Your task to perform on an android device: Add "jbl flip 4" to the cart on bestbuy.com, then select checkout. Image 0: 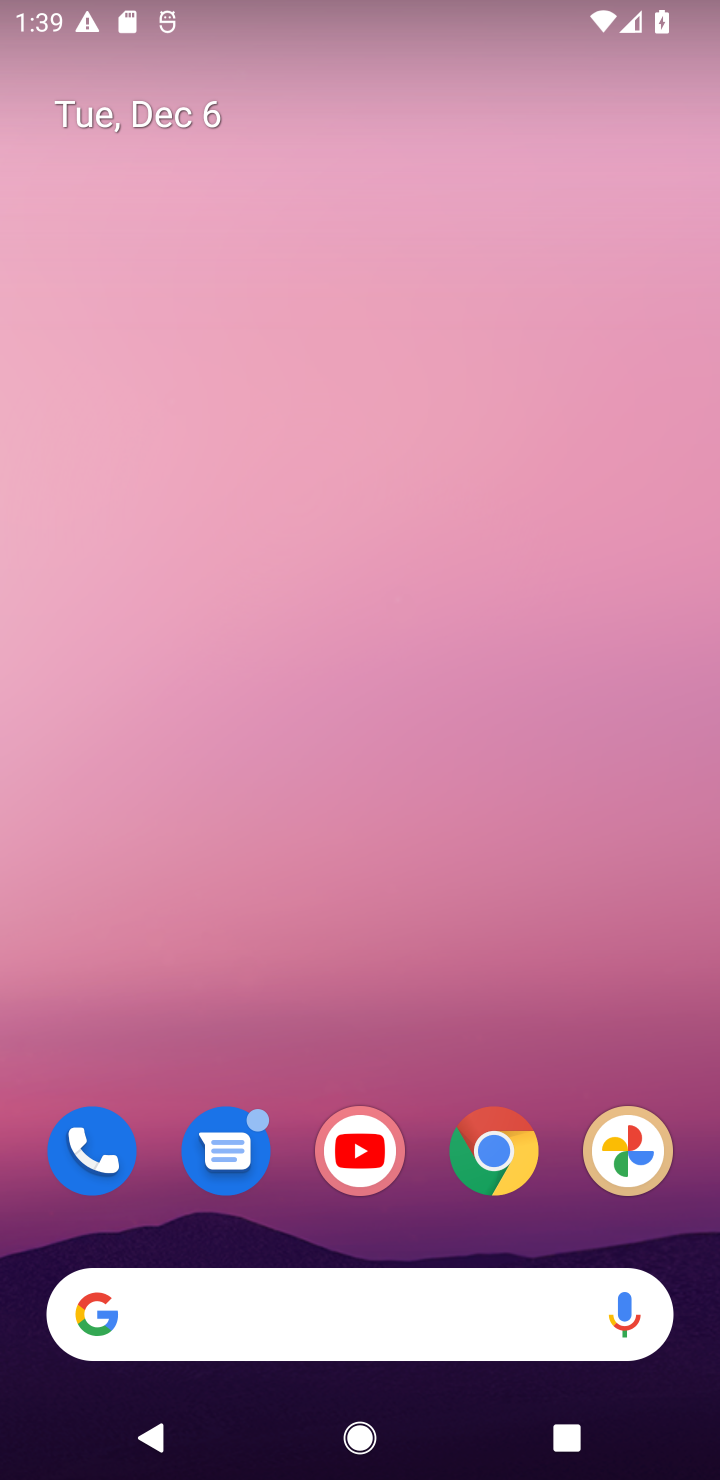
Step 0: click (508, 1154)
Your task to perform on an android device: Add "jbl flip 4" to the cart on bestbuy.com, then select checkout. Image 1: 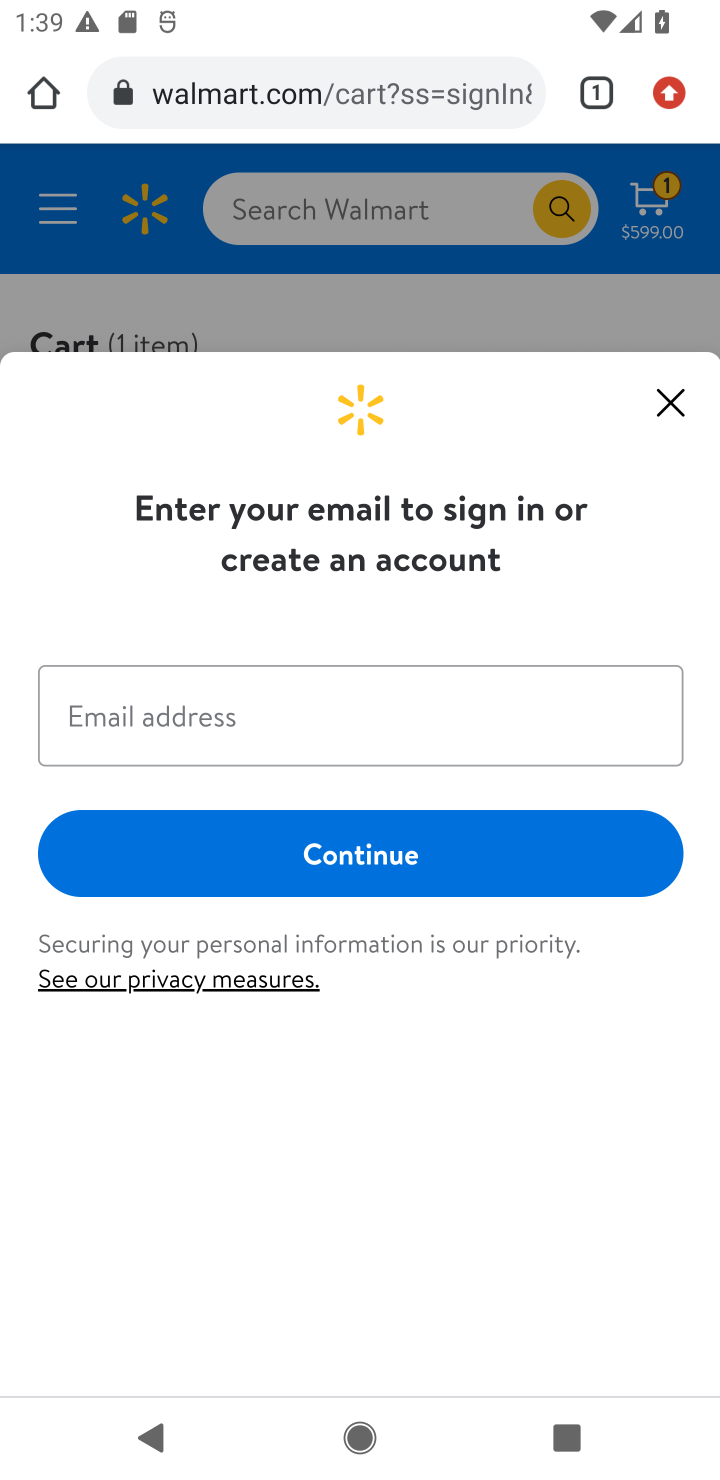
Step 1: click (277, 108)
Your task to perform on an android device: Add "jbl flip 4" to the cart on bestbuy.com, then select checkout. Image 2: 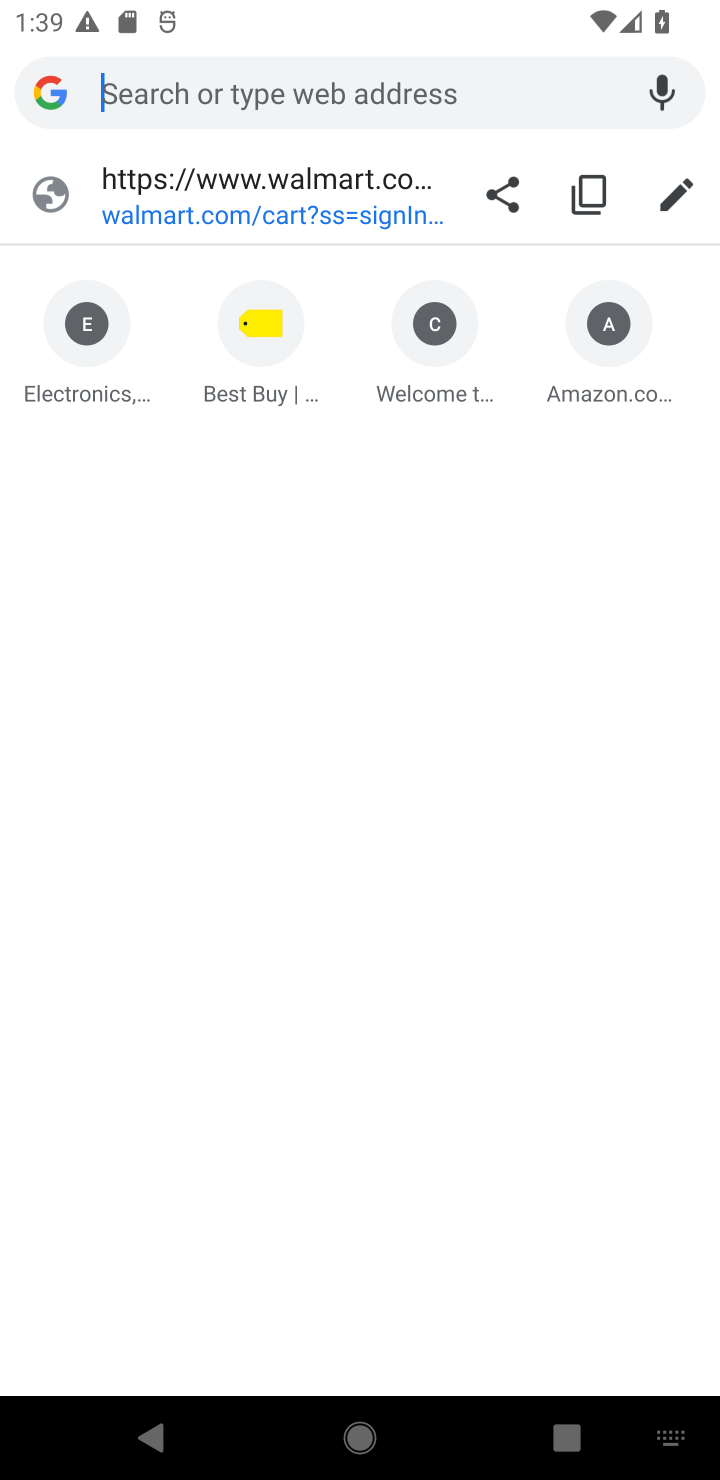
Step 2: click (253, 341)
Your task to perform on an android device: Add "jbl flip 4" to the cart on bestbuy.com, then select checkout. Image 3: 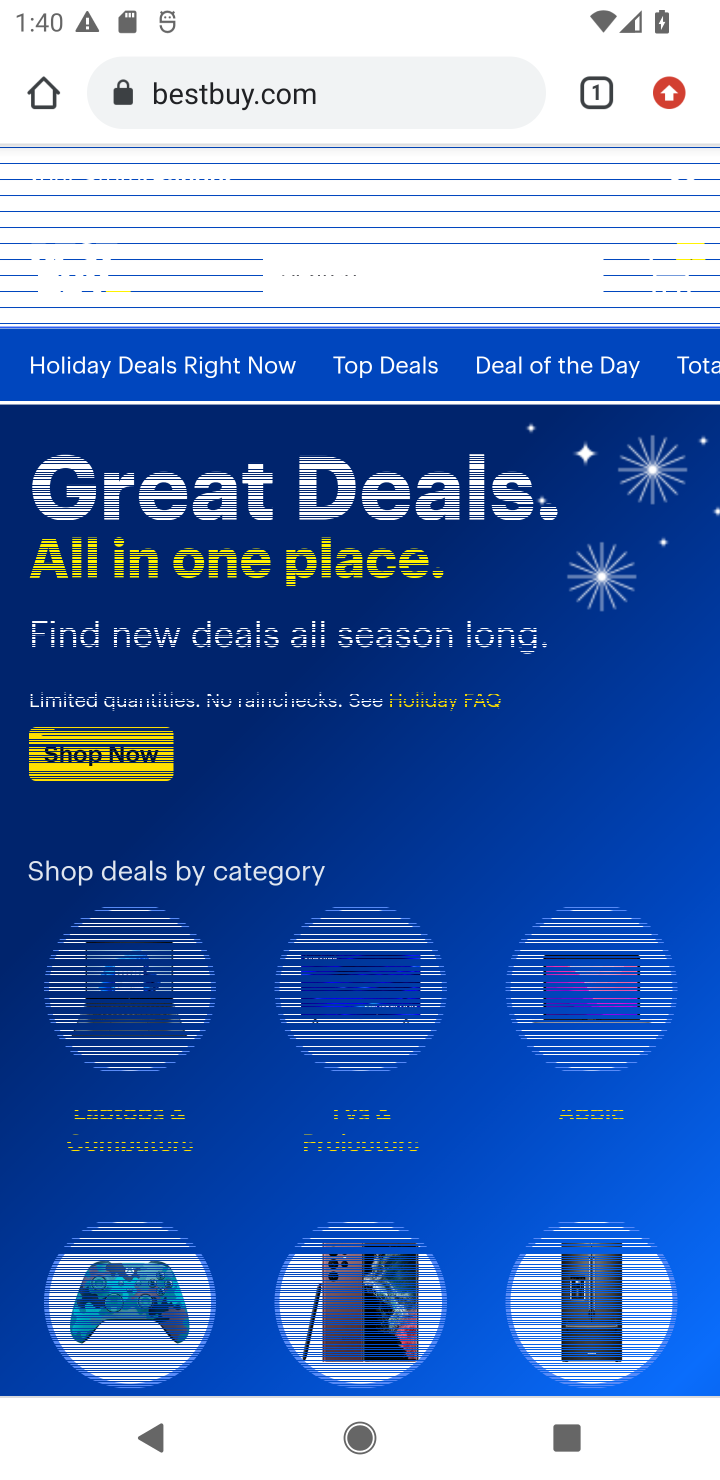
Step 3: click (321, 272)
Your task to perform on an android device: Add "jbl flip 4" to the cart on bestbuy.com, then select checkout. Image 4: 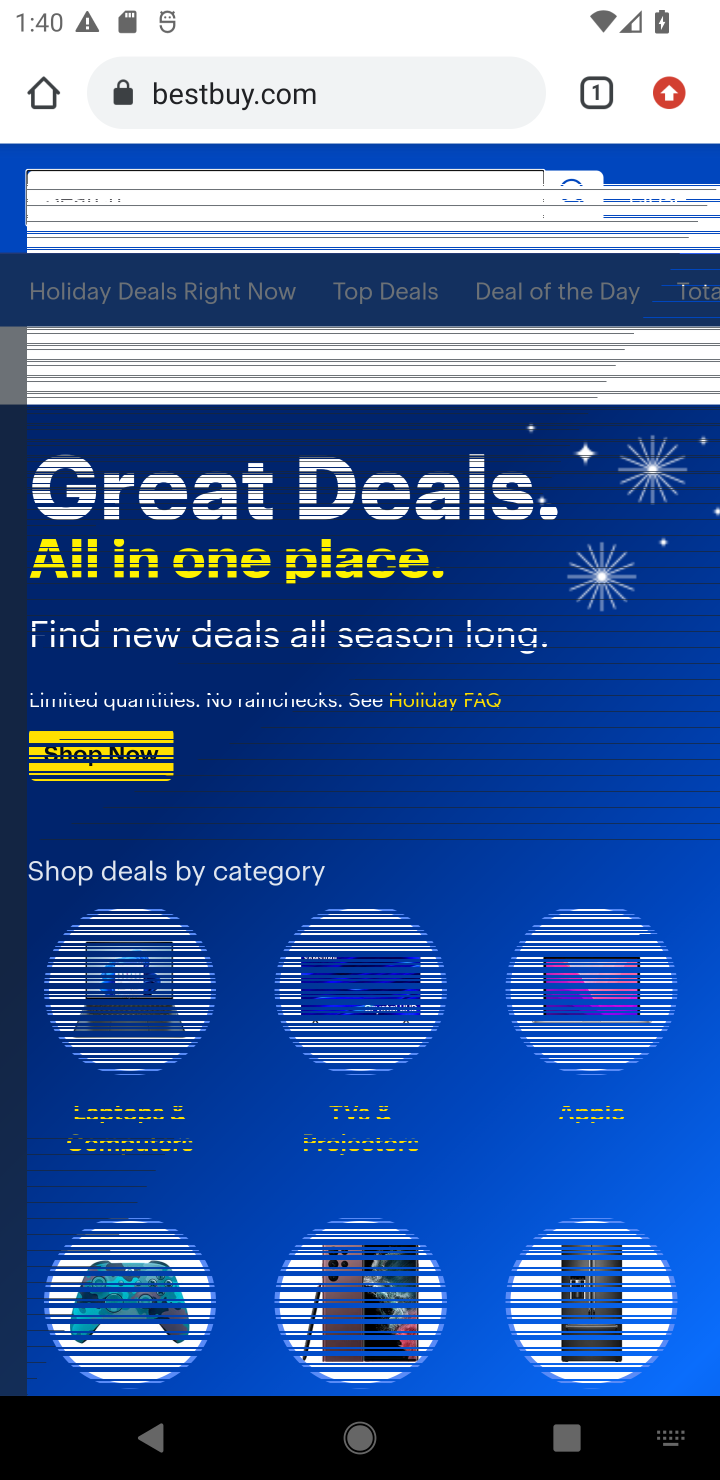
Step 4: type "jbl flip 4"
Your task to perform on an android device: Add "jbl flip 4" to the cart on bestbuy.com, then select checkout. Image 5: 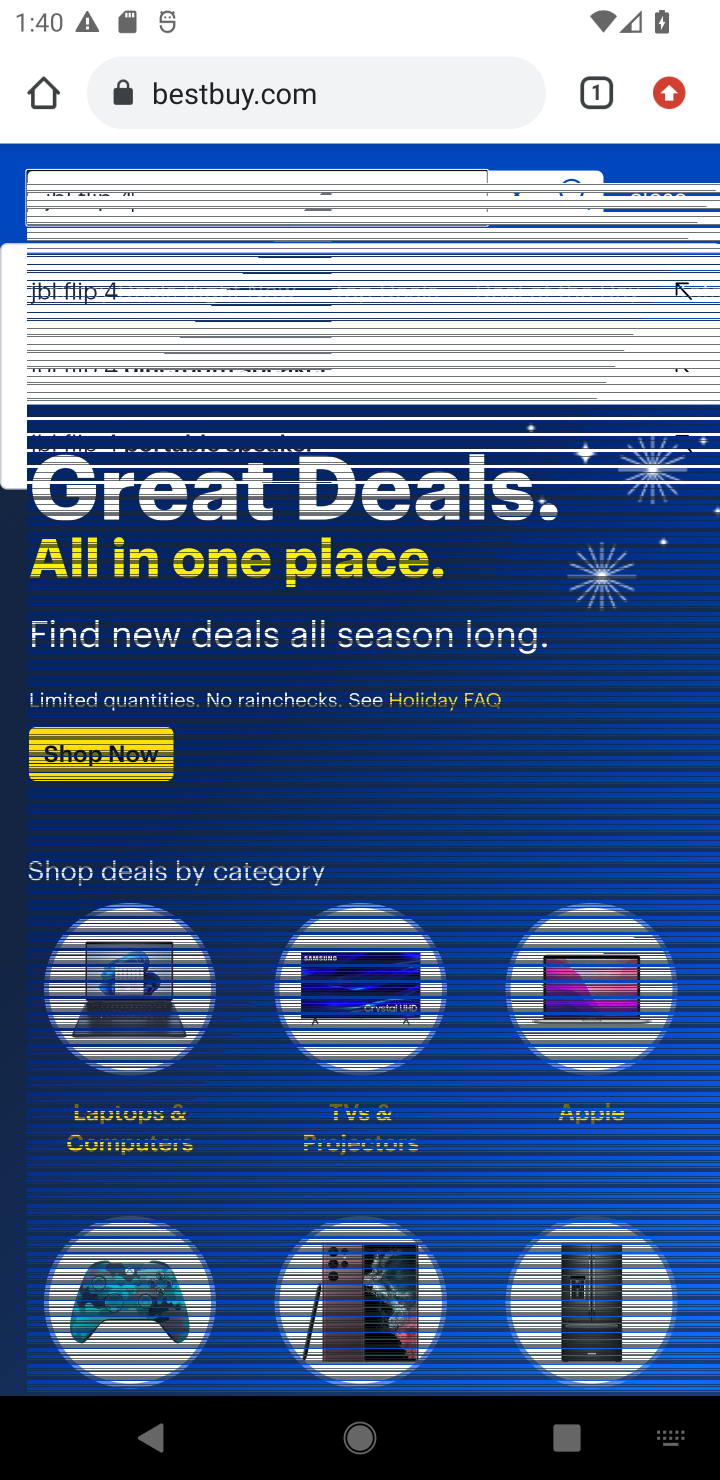
Step 5: click (75, 303)
Your task to perform on an android device: Add "jbl flip 4" to the cart on bestbuy.com, then select checkout. Image 6: 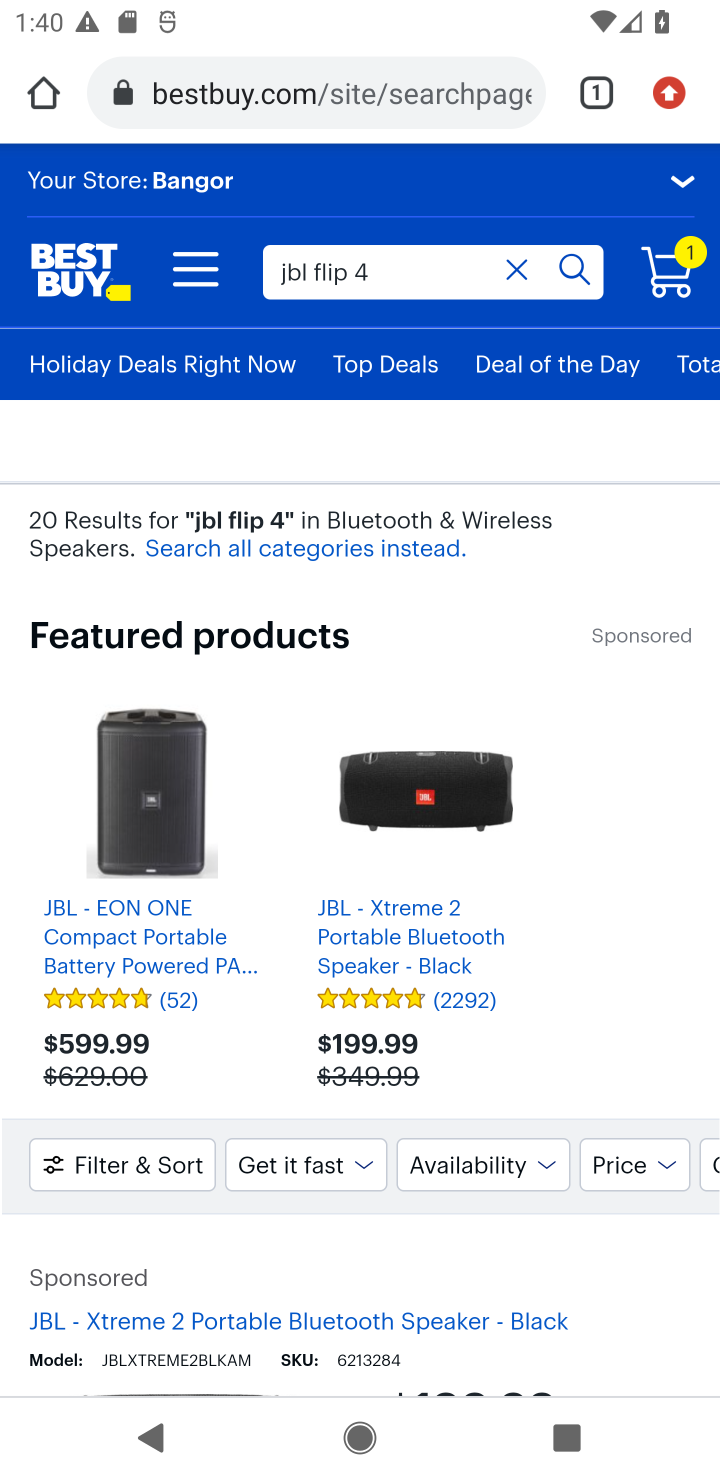
Step 6: task complete